Your task to perform on an android device: turn on improve location accuracy Image 0: 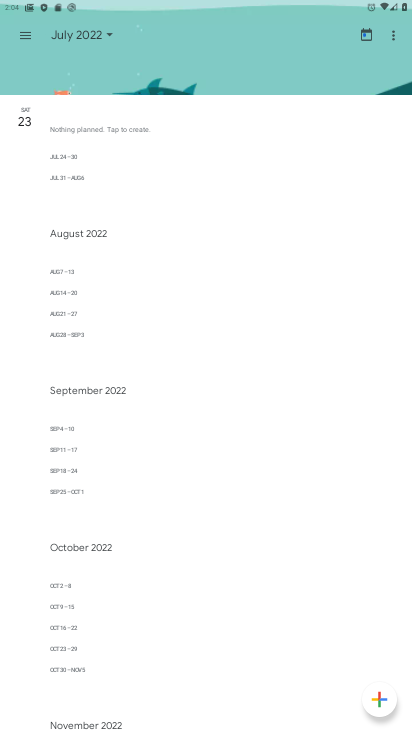
Step 0: press home button
Your task to perform on an android device: turn on improve location accuracy Image 1: 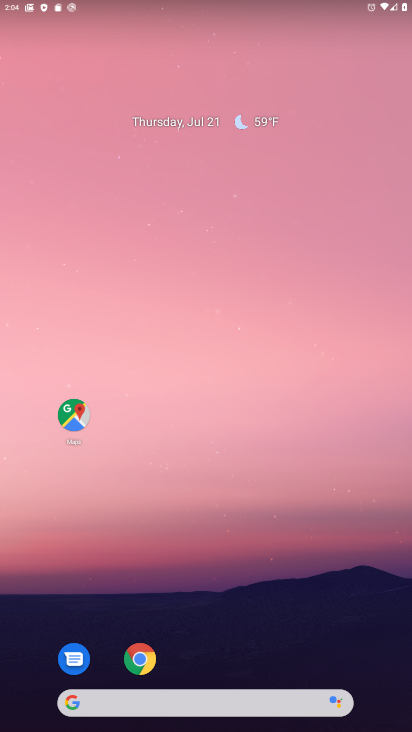
Step 1: drag from (248, 591) to (174, 23)
Your task to perform on an android device: turn on improve location accuracy Image 2: 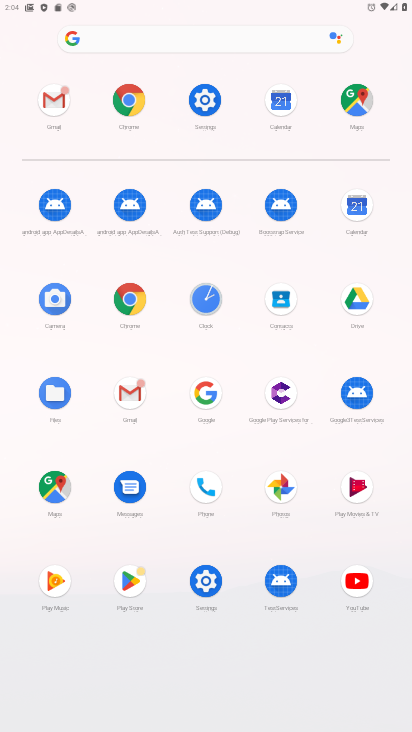
Step 2: click (200, 109)
Your task to perform on an android device: turn on improve location accuracy Image 3: 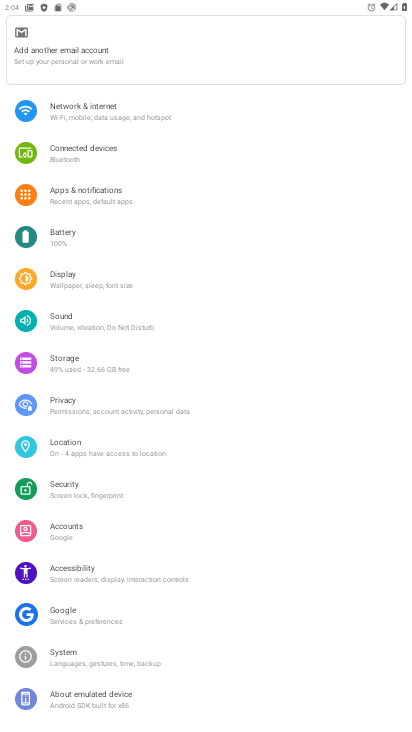
Step 3: click (93, 441)
Your task to perform on an android device: turn on improve location accuracy Image 4: 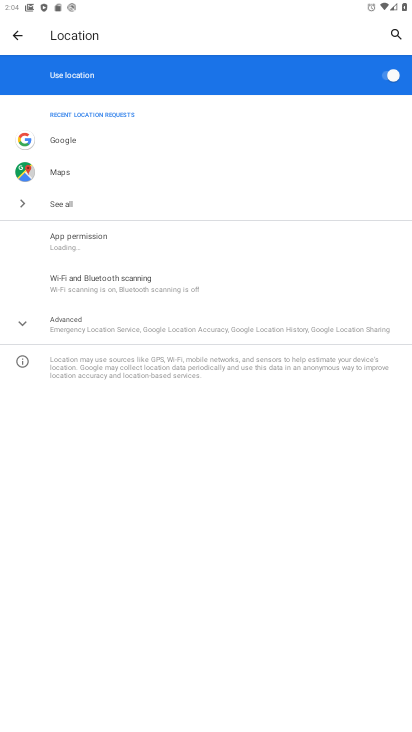
Step 4: click (103, 323)
Your task to perform on an android device: turn on improve location accuracy Image 5: 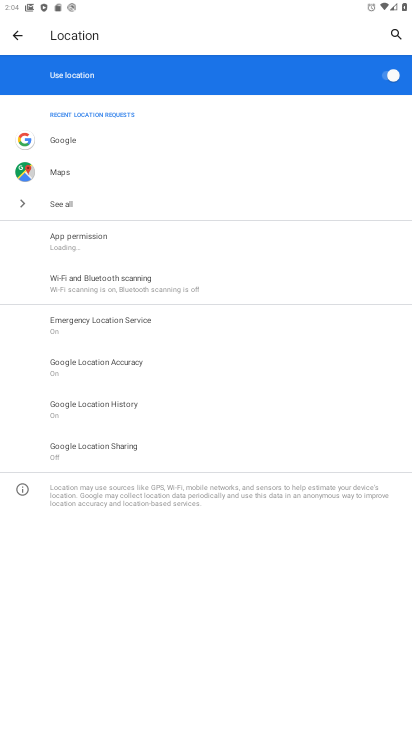
Step 5: click (99, 371)
Your task to perform on an android device: turn on improve location accuracy Image 6: 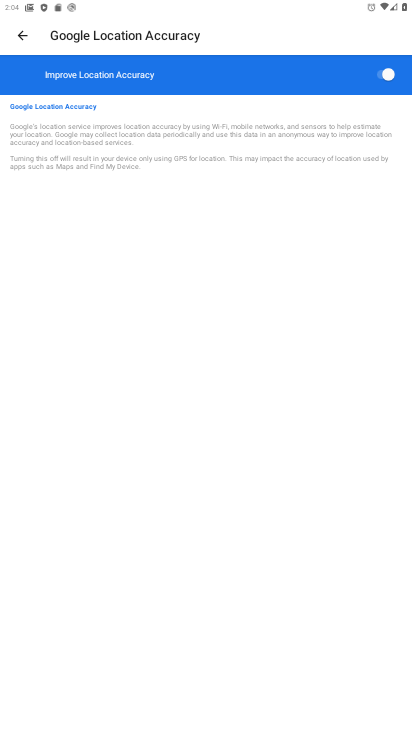
Step 6: task complete